Your task to perform on an android device: set the timer Image 0: 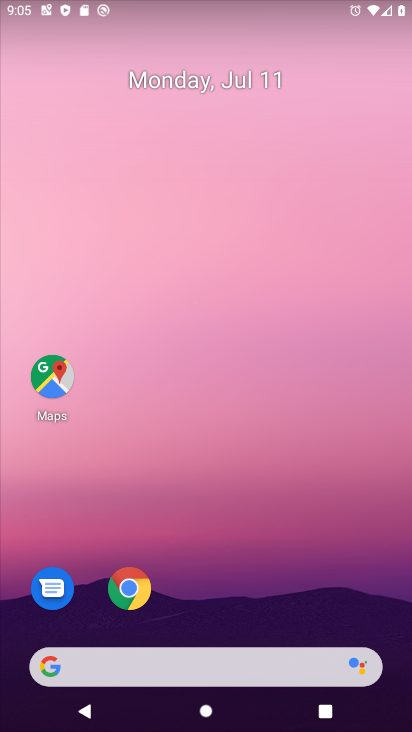
Step 0: drag from (205, 419) to (218, 35)
Your task to perform on an android device: set the timer Image 1: 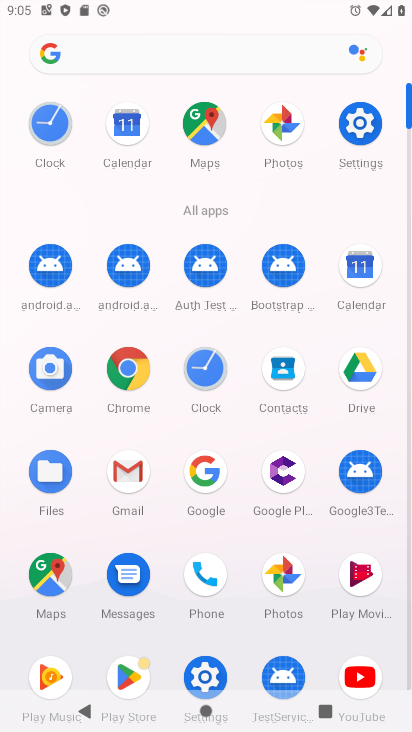
Step 1: click (217, 373)
Your task to perform on an android device: set the timer Image 2: 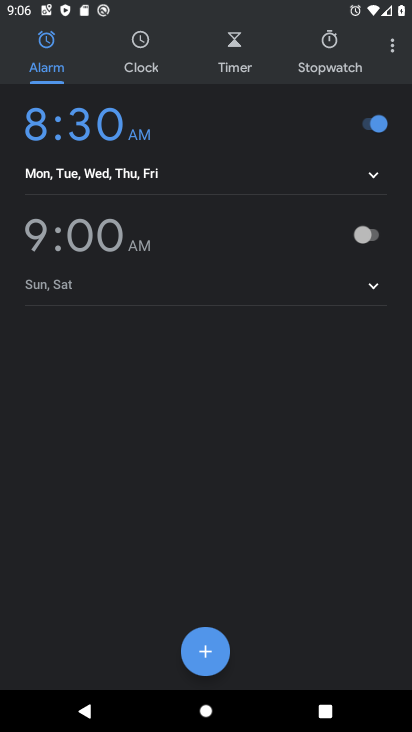
Step 2: click (244, 49)
Your task to perform on an android device: set the timer Image 3: 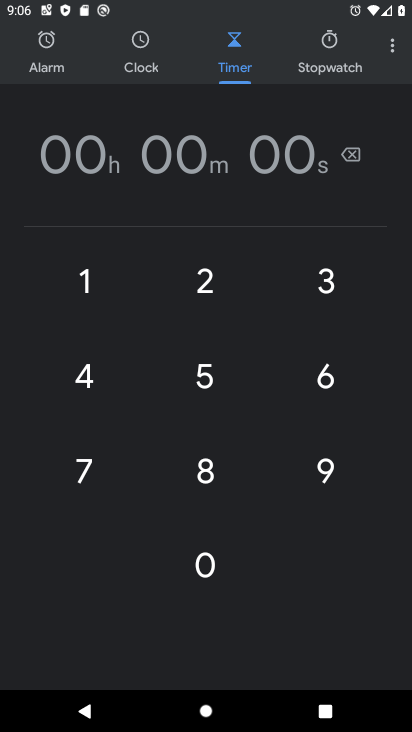
Step 3: click (207, 271)
Your task to perform on an android device: set the timer Image 4: 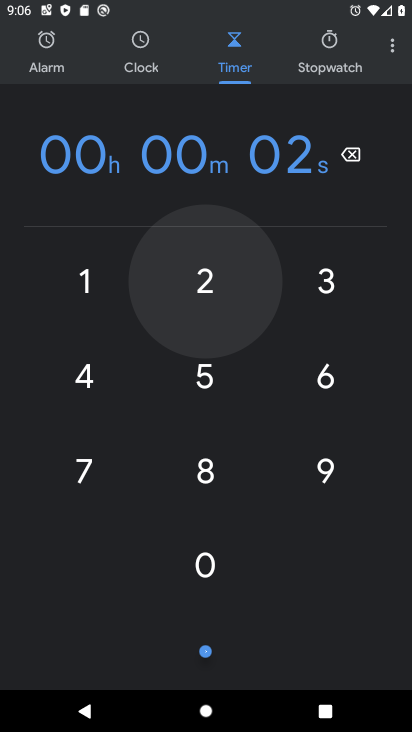
Step 4: click (364, 277)
Your task to perform on an android device: set the timer Image 5: 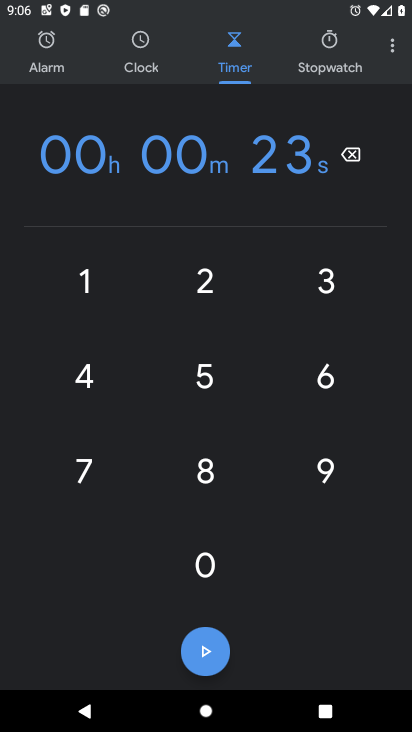
Step 5: click (195, 374)
Your task to perform on an android device: set the timer Image 6: 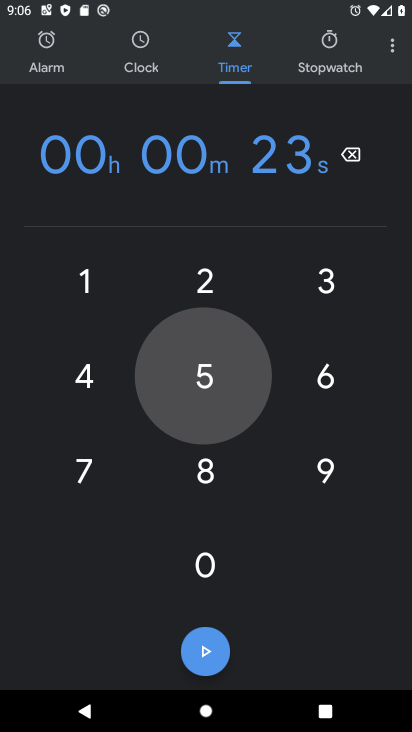
Step 6: click (298, 381)
Your task to perform on an android device: set the timer Image 7: 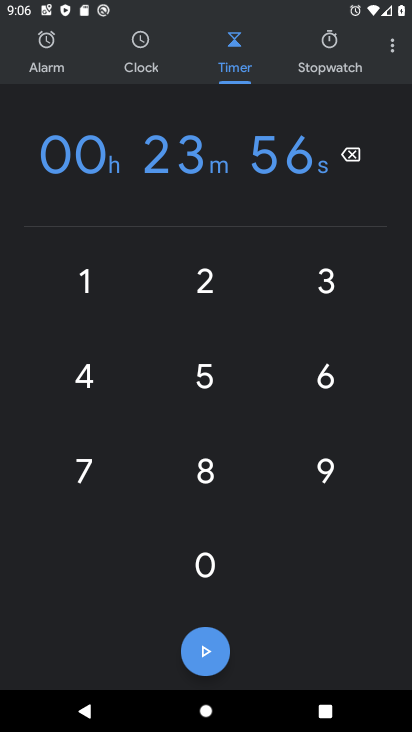
Step 7: click (98, 365)
Your task to perform on an android device: set the timer Image 8: 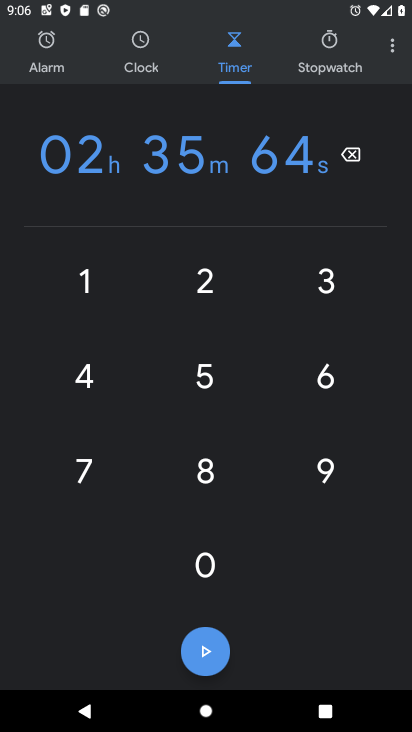
Step 8: task complete